Your task to perform on an android device: set an alarm Image 0: 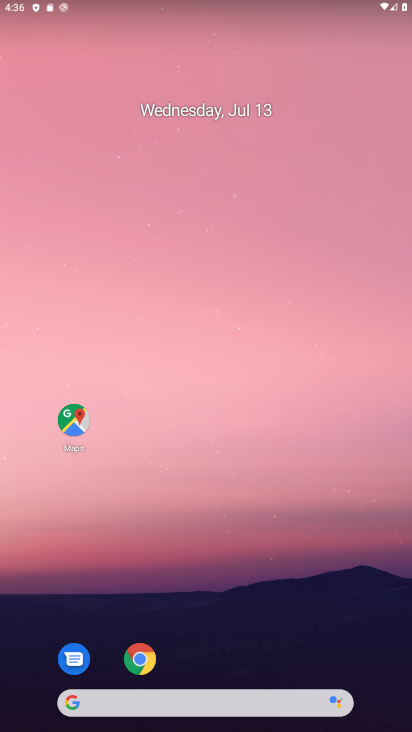
Step 0: drag from (269, 322) to (239, 31)
Your task to perform on an android device: set an alarm Image 1: 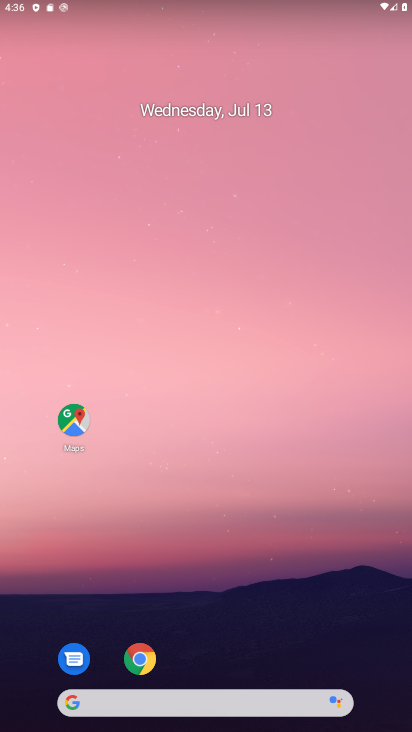
Step 1: drag from (292, 587) to (261, 33)
Your task to perform on an android device: set an alarm Image 2: 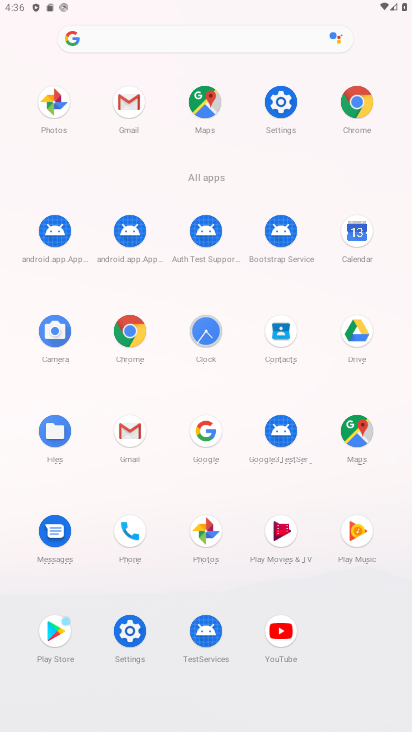
Step 2: click (208, 324)
Your task to perform on an android device: set an alarm Image 3: 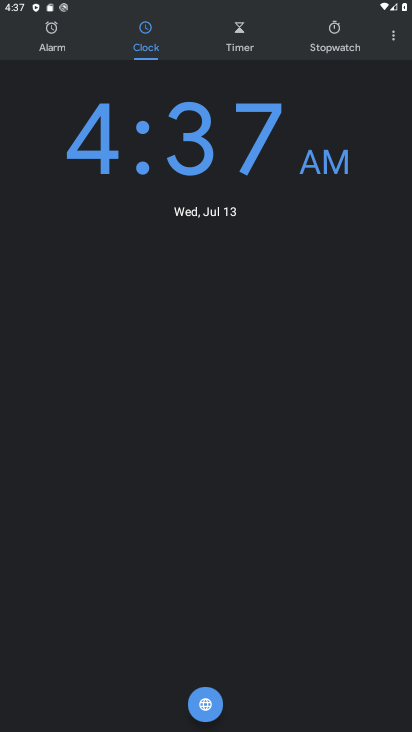
Step 3: click (57, 26)
Your task to perform on an android device: set an alarm Image 4: 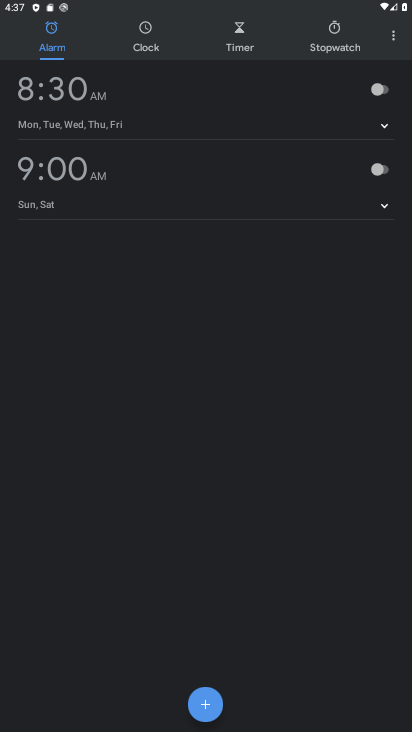
Step 4: click (213, 707)
Your task to perform on an android device: set an alarm Image 5: 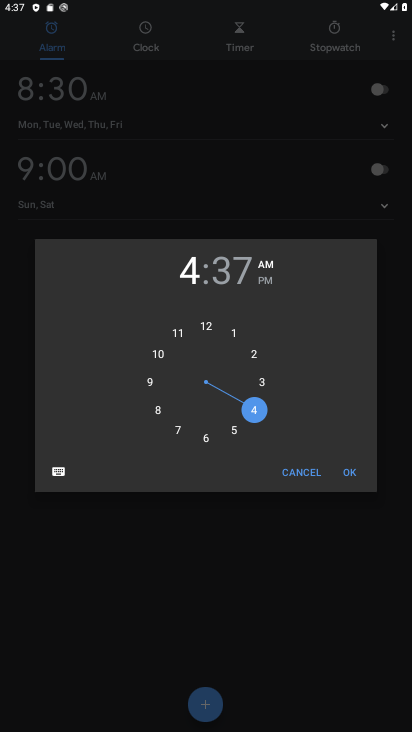
Step 5: click (353, 467)
Your task to perform on an android device: set an alarm Image 6: 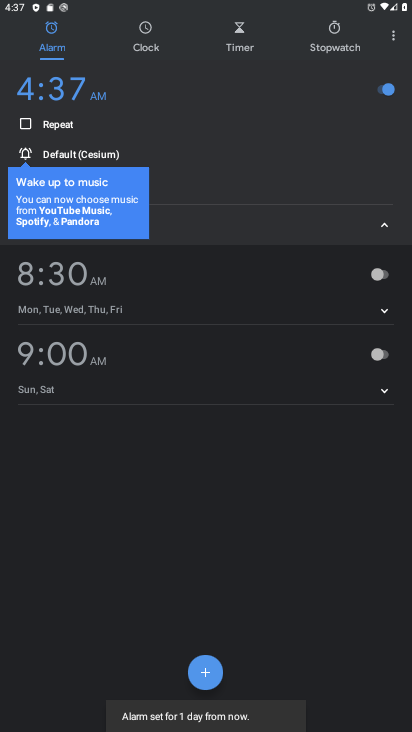
Step 6: task complete